Your task to perform on an android device: turn on bluetooth scan Image 0: 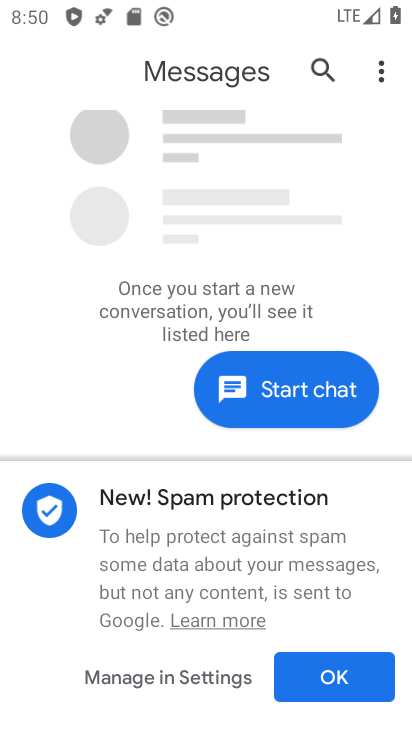
Step 0: drag from (205, 722) to (187, 281)
Your task to perform on an android device: turn on bluetooth scan Image 1: 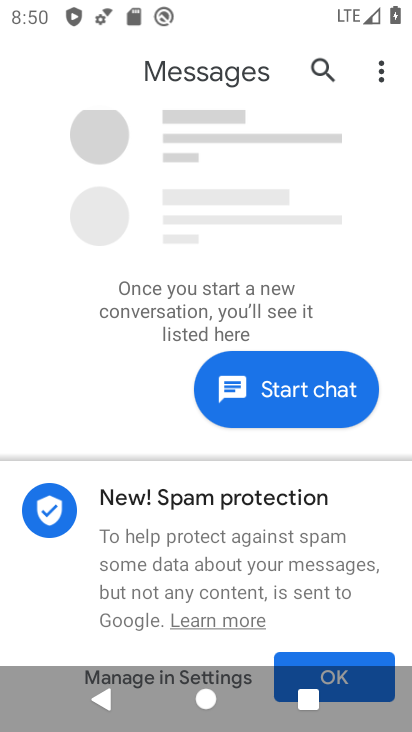
Step 1: press home button
Your task to perform on an android device: turn on bluetooth scan Image 2: 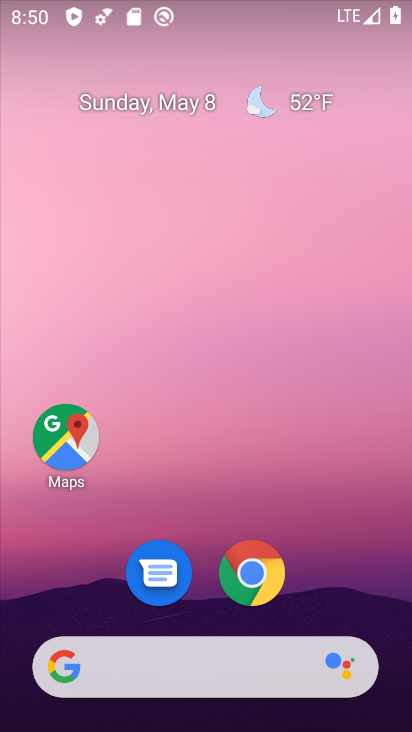
Step 2: drag from (199, 723) to (176, 195)
Your task to perform on an android device: turn on bluetooth scan Image 3: 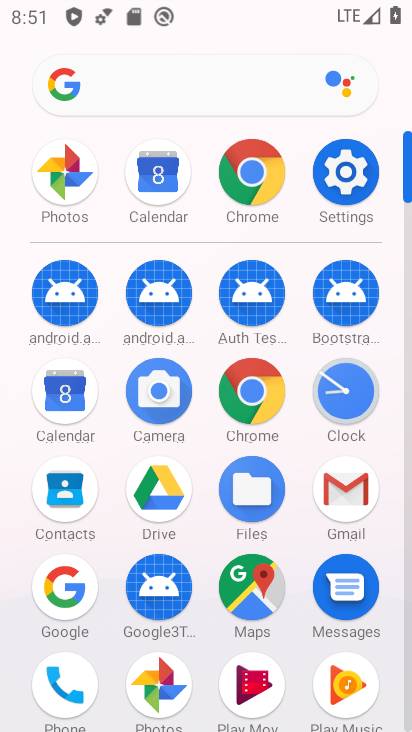
Step 3: click (351, 166)
Your task to perform on an android device: turn on bluetooth scan Image 4: 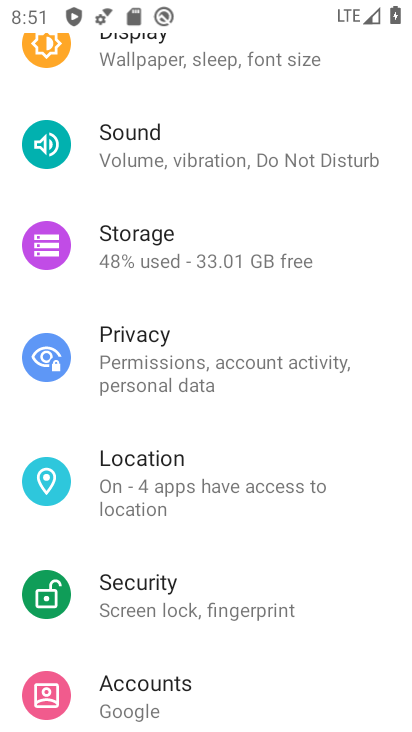
Step 4: click (144, 480)
Your task to perform on an android device: turn on bluetooth scan Image 5: 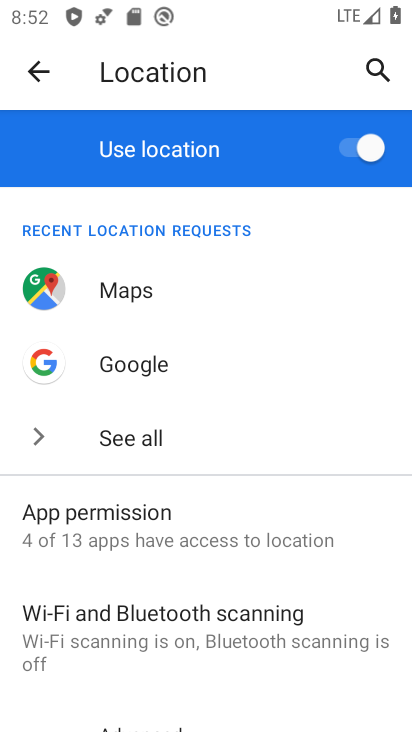
Step 5: drag from (270, 681) to (243, 424)
Your task to perform on an android device: turn on bluetooth scan Image 6: 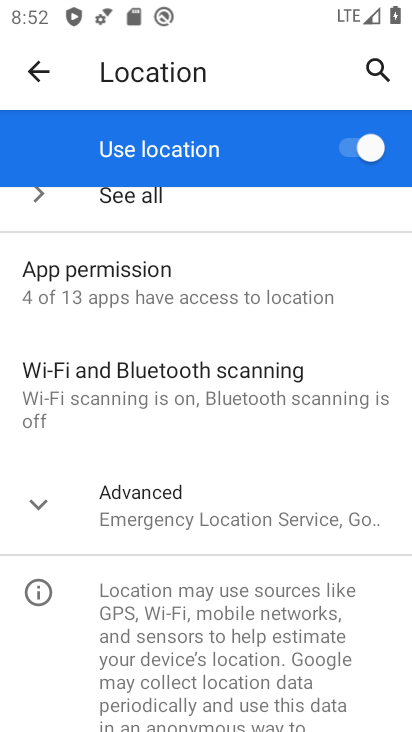
Step 6: drag from (200, 652) to (189, 516)
Your task to perform on an android device: turn on bluetooth scan Image 7: 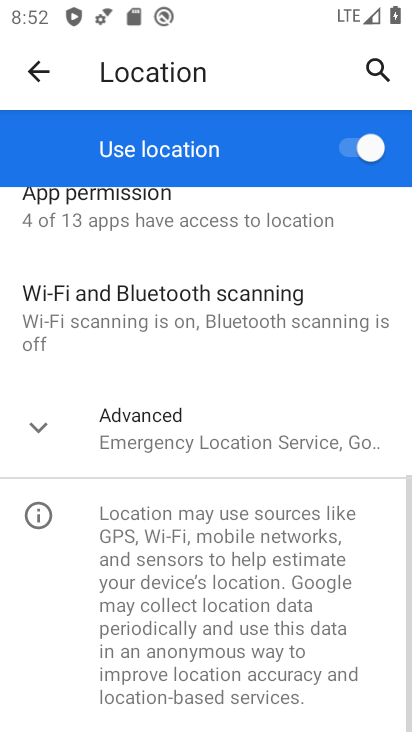
Step 7: click (154, 316)
Your task to perform on an android device: turn on bluetooth scan Image 8: 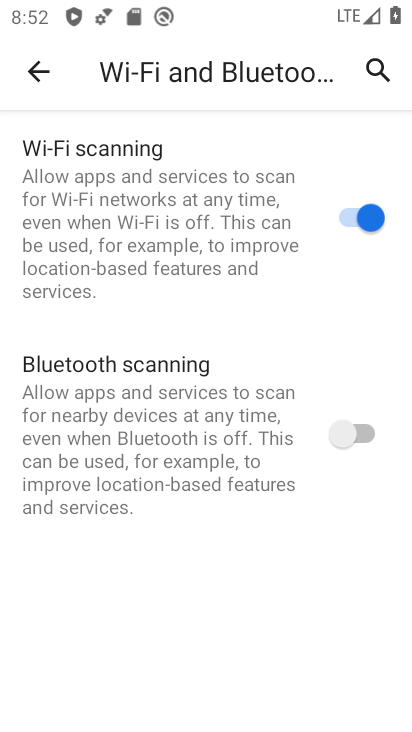
Step 8: click (363, 432)
Your task to perform on an android device: turn on bluetooth scan Image 9: 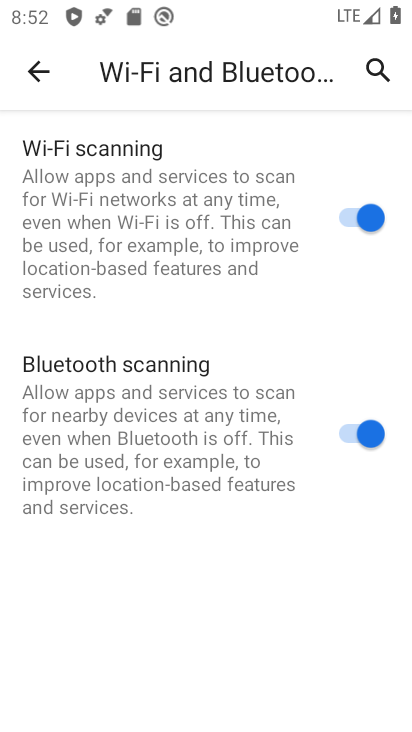
Step 9: task complete